Your task to perform on an android device: change the clock display to analog Image 0: 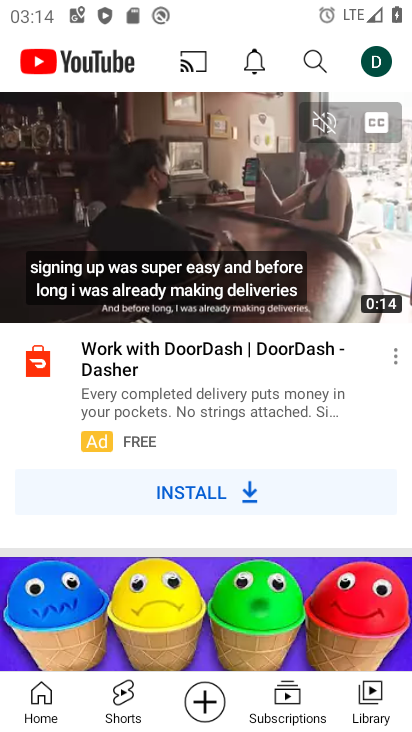
Step 0: press home button
Your task to perform on an android device: change the clock display to analog Image 1: 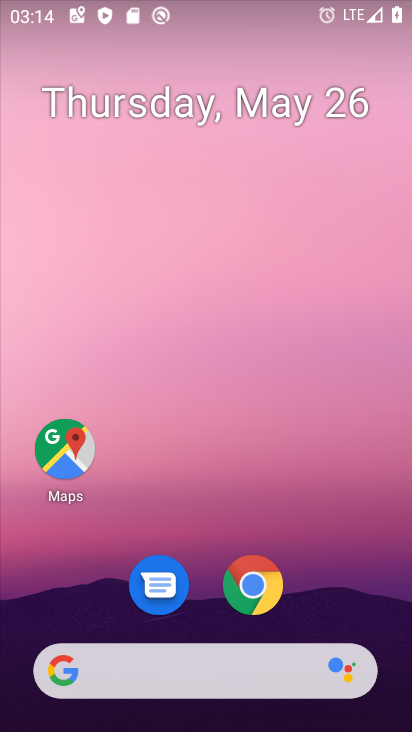
Step 1: drag from (251, 496) to (248, 57)
Your task to perform on an android device: change the clock display to analog Image 2: 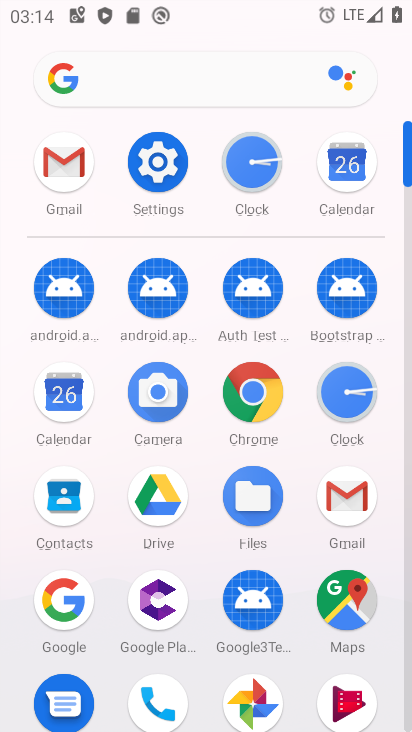
Step 2: click (244, 160)
Your task to perform on an android device: change the clock display to analog Image 3: 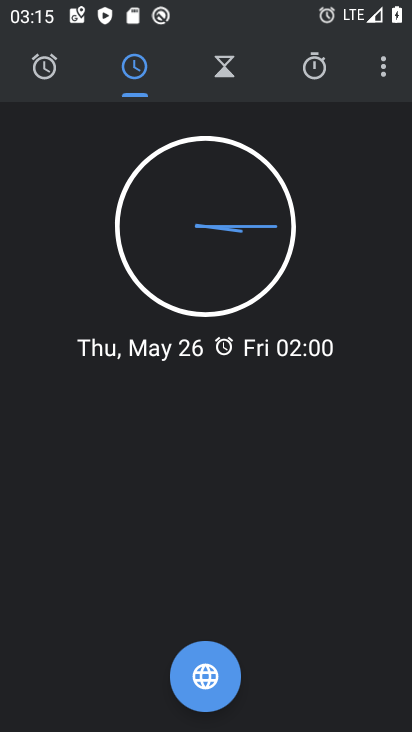
Step 3: task complete